Your task to perform on an android device: Open battery settings Image 0: 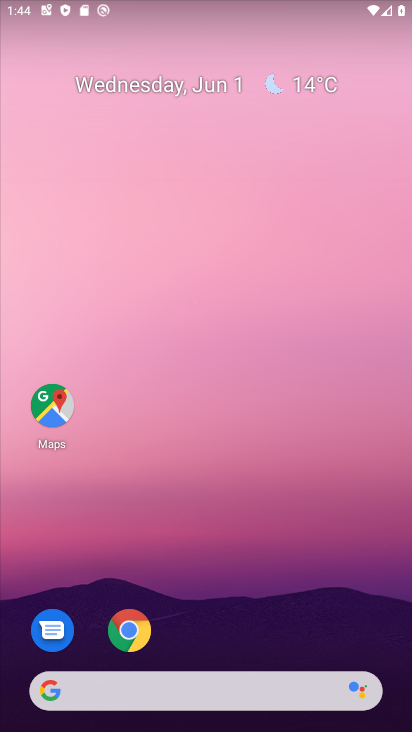
Step 0: press home button
Your task to perform on an android device: Open battery settings Image 1: 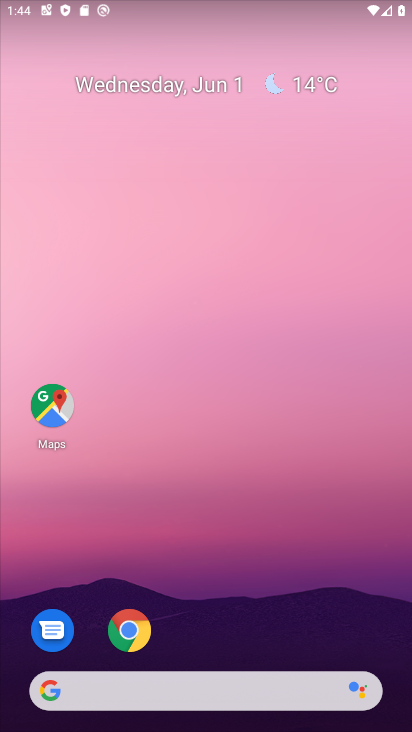
Step 1: click (258, 62)
Your task to perform on an android device: Open battery settings Image 2: 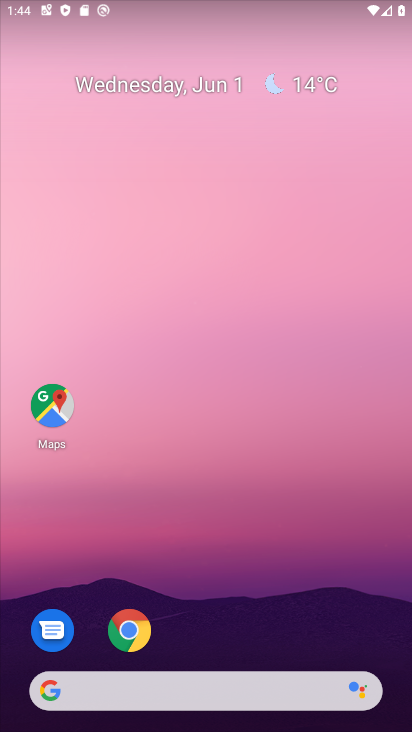
Step 2: drag from (216, 628) to (235, 57)
Your task to perform on an android device: Open battery settings Image 3: 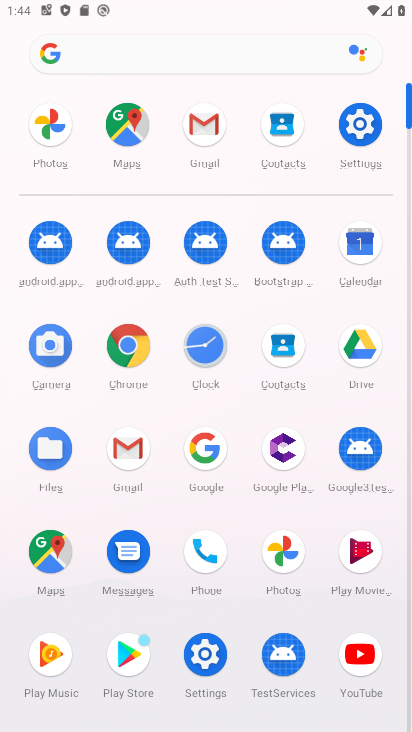
Step 3: click (356, 118)
Your task to perform on an android device: Open battery settings Image 4: 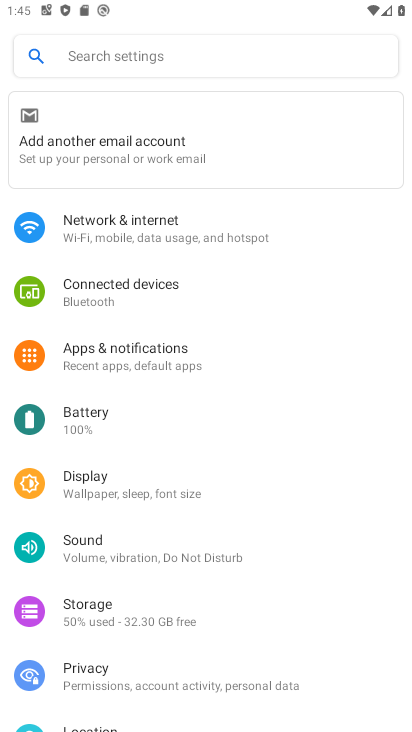
Step 4: click (122, 413)
Your task to perform on an android device: Open battery settings Image 5: 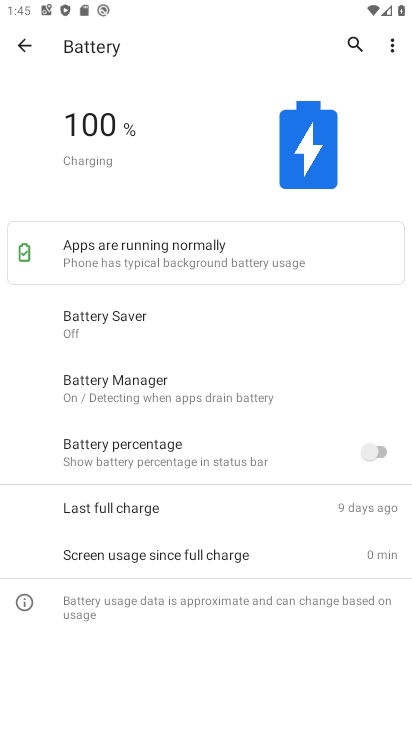
Step 5: task complete